Your task to perform on an android device: turn pop-ups on in chrome Image 0: 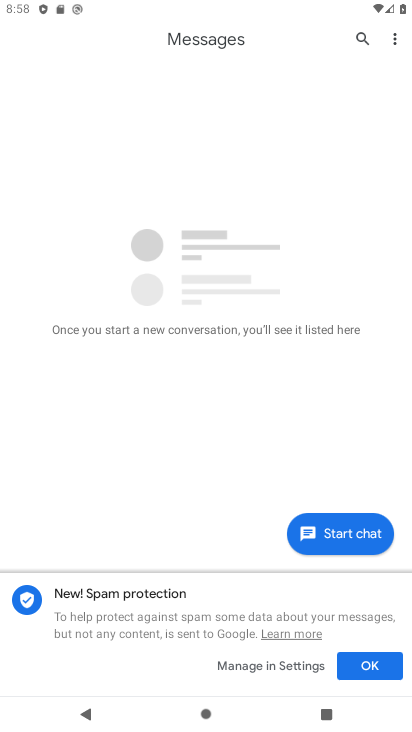
Step 0: press home button
Your task to perform on an android device: turn pop-ups on in chrome Image 1: 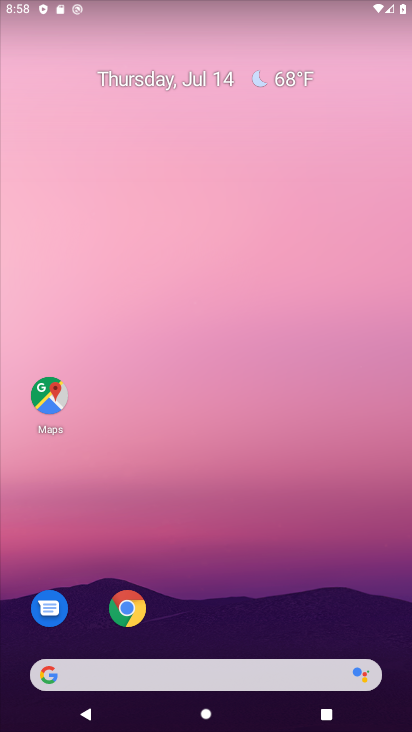
Step 1: drag from (197, 679) to (283, 159)
Your task to perform on an android device: turn pop-ups on in chrome Image 2: 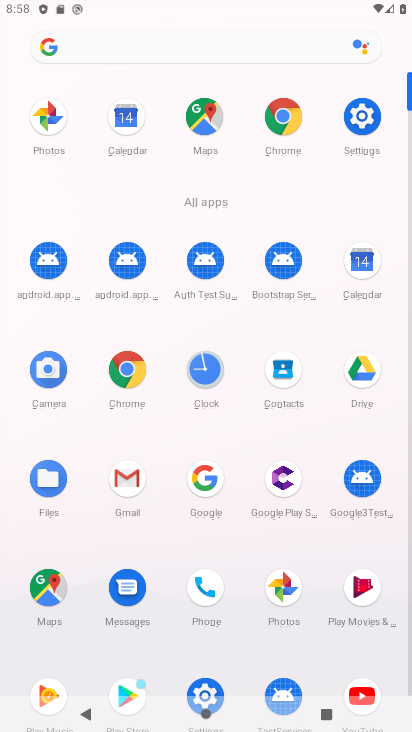
Step 2: click (289, 109)
Your task to perform on an android device: turn pop-ups on in chrome Image 3: 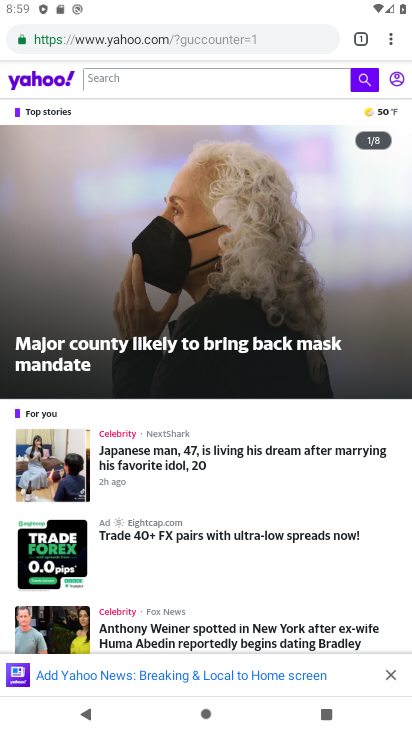
Step 3: drag from (389, 27) to (267, 469)
Your task to perform on an android device: turn pop-ups on in chrome Image 4: 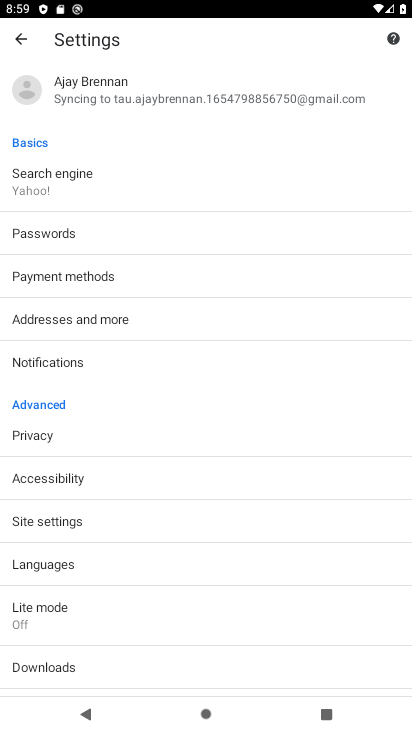
Step 4: click (55, 524)
Your task to perform on an android device: turn pop-ups on in chrome Image 5: 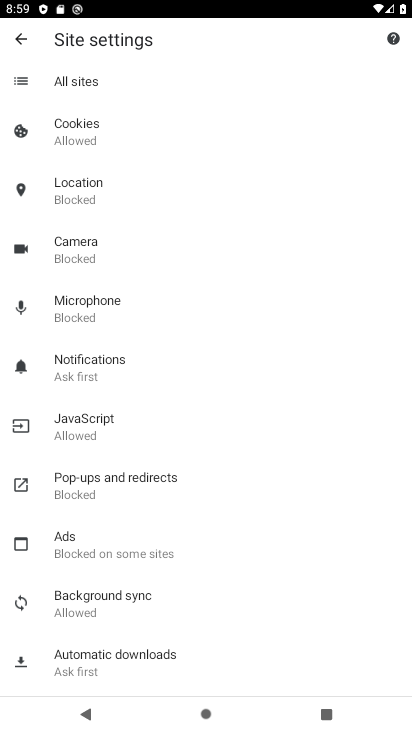
Step 5: click (150, 479)
Your task to perform on an android device: turn pop-ups on in chrome Image 6: 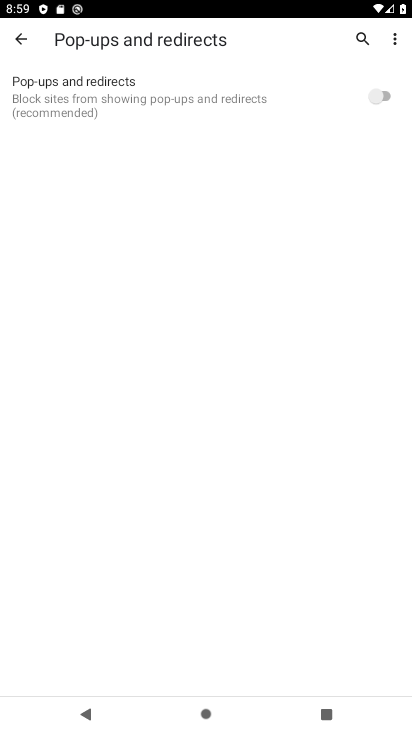
Step 6: click (379, 95)
Your task to perform on an android device: turn pop-ups on in chrome Image 7: 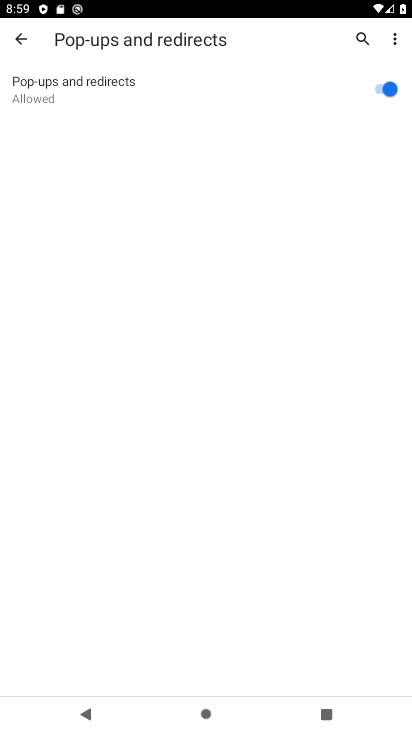
Step 7: task complete